Your task to perform on an android device: uninstall "HBO Max: Stream TV & Movies" Image 0: 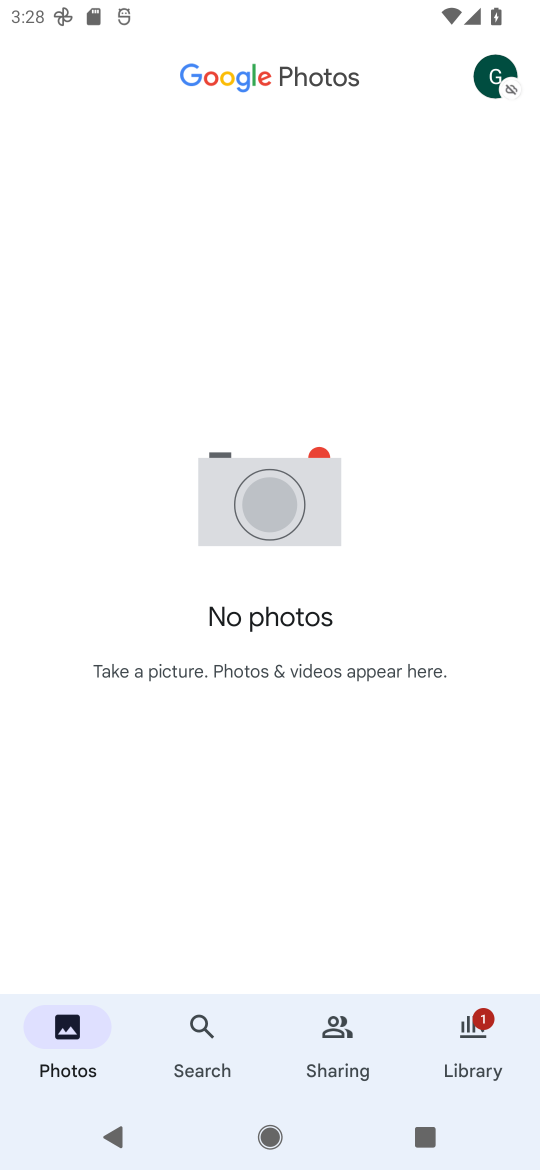
Step 0: press home button
Your task to perform on an android device: uninstall "HBO Max: Stream TV & Movies" Image 1: 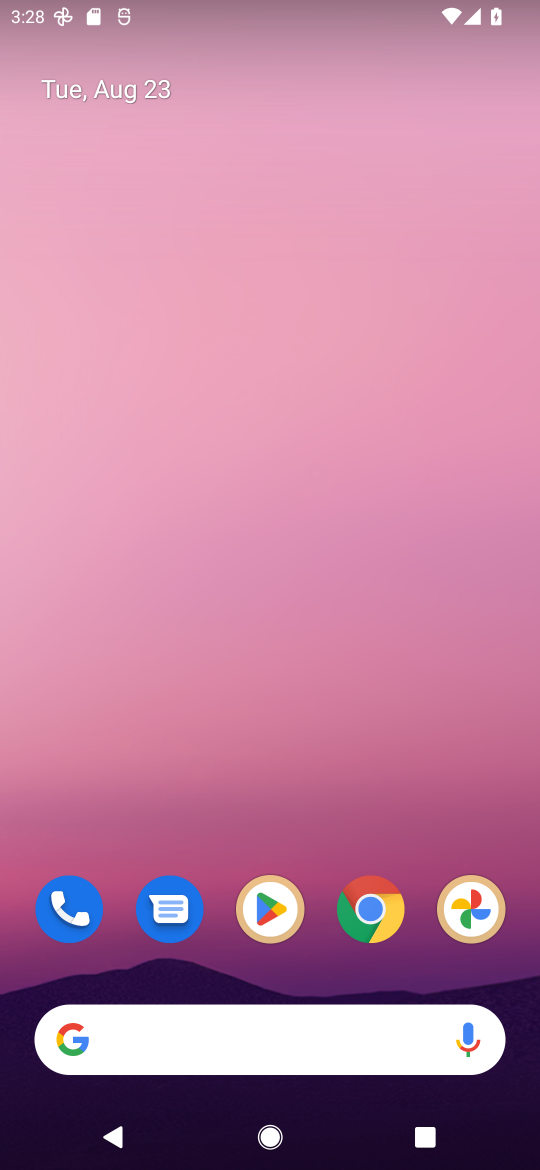
Step 1: press home button
Your task to perform on an android device: uninstall "HBO Max: Stream TV & Movies" Image 2: 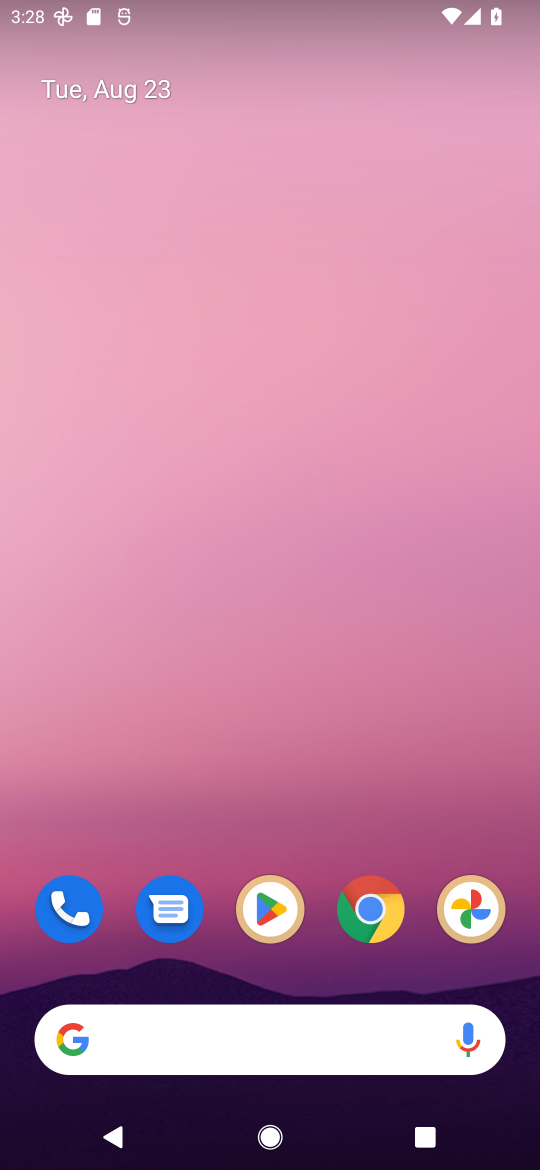
Step 2: click (259, 899)
Your task to perform on an android device: uninstall "HBO Max: Stream TV & Movies" Image 3: 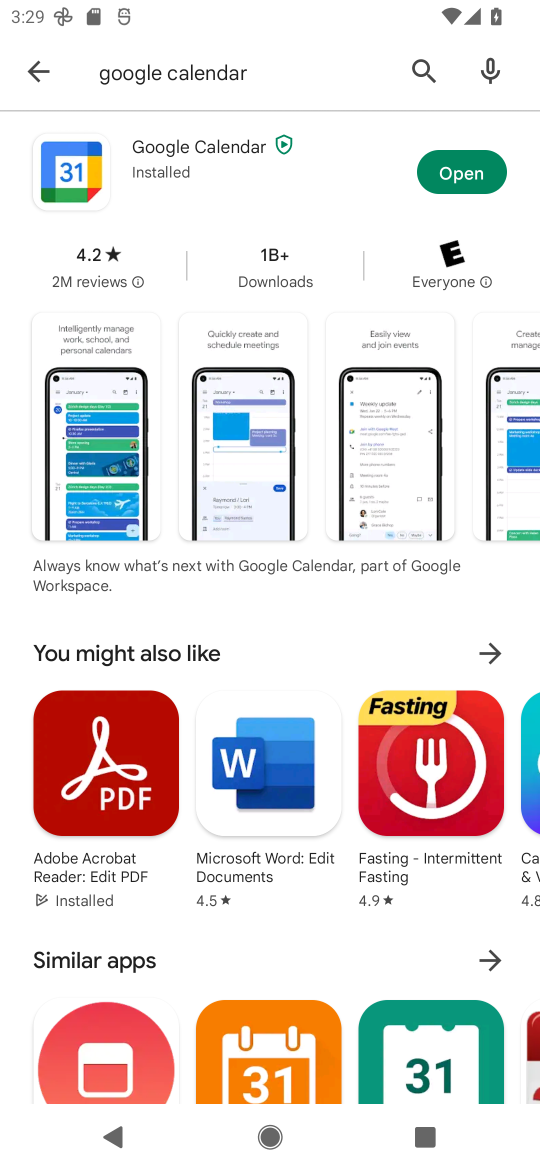
Step 3: click (416, 73)
Your task to perform on an android device: uninstall "HBO Max: Stream TV & Movies" Image 4: 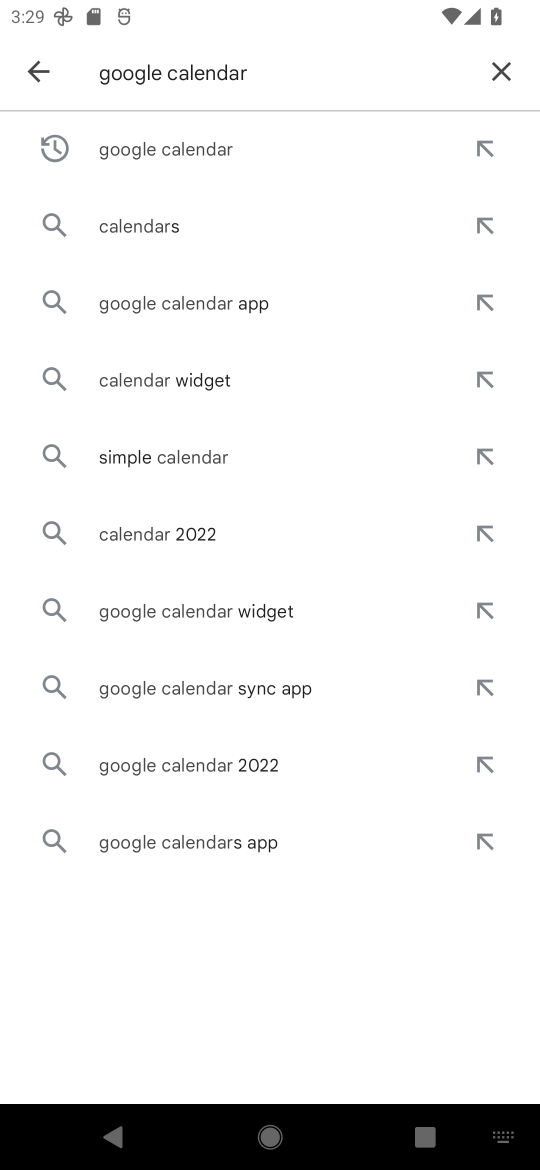
Step 4: click (498, 73)
Your task to perform on an android device: uninstall "HBO Max: Stream TV & Movies" Image 5: 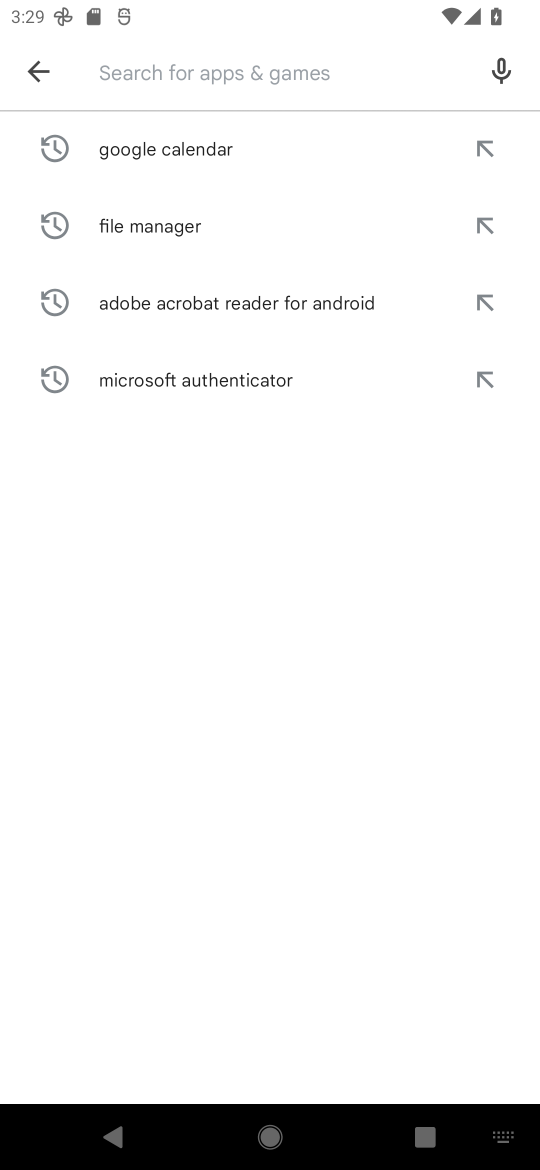
Step 5: type "HBO Max: Stream TV & Movies"
Your task to perform on an android device: uninstall "HBO Max: Stream TV & Movies" Image 6: 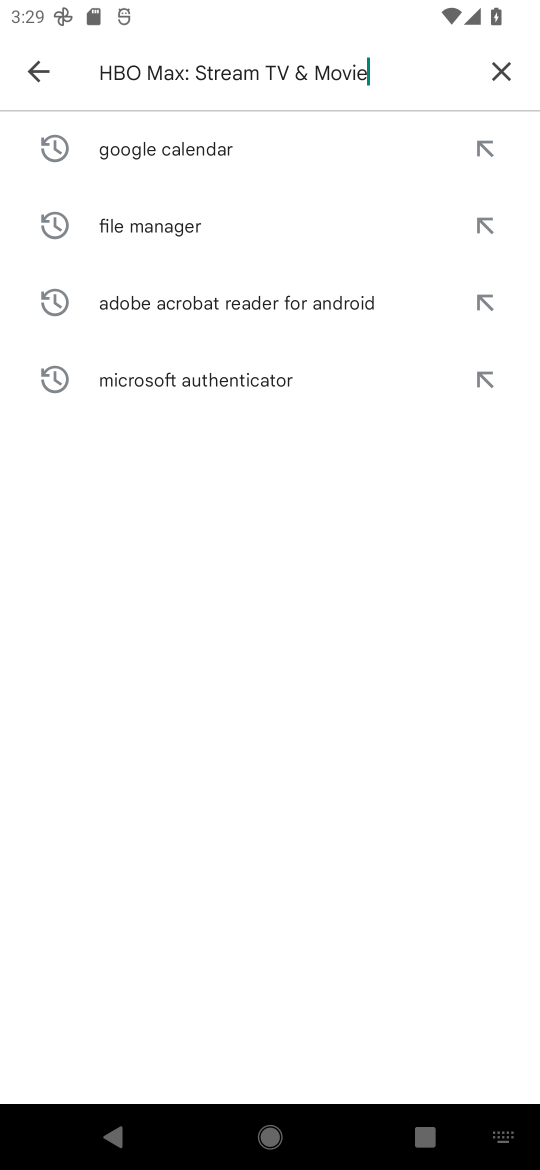
Step 6: type ""
Your task to perform on an android device: uninstall "HBO Max: Stream TV & Movies" Image 7: 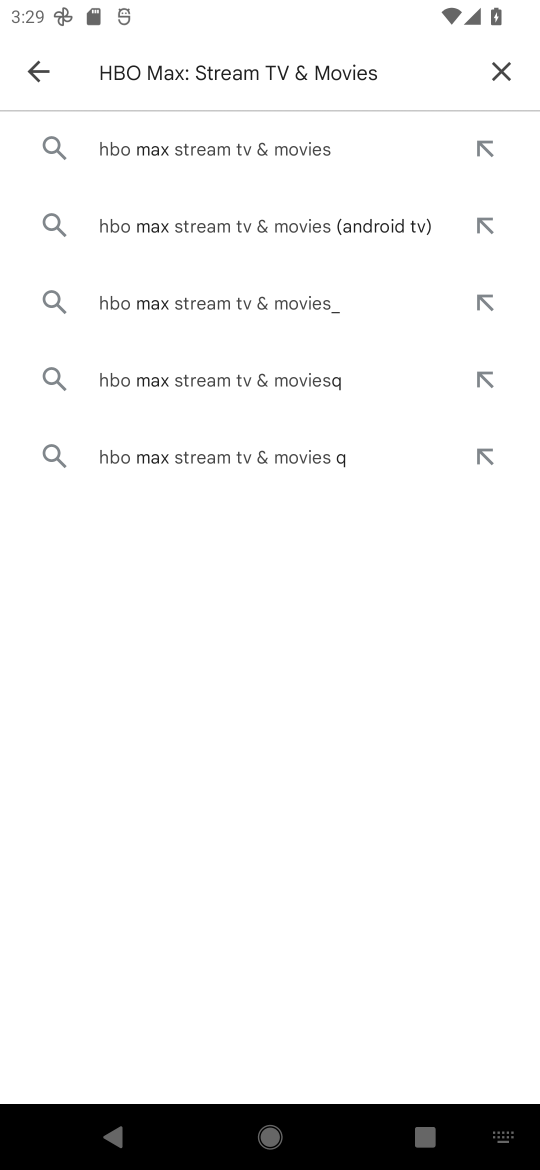
Step 7: click (334, 142)
Your task to perform on an android device: uninstall "HBO Max: Stream TV & Movies" Image 8: 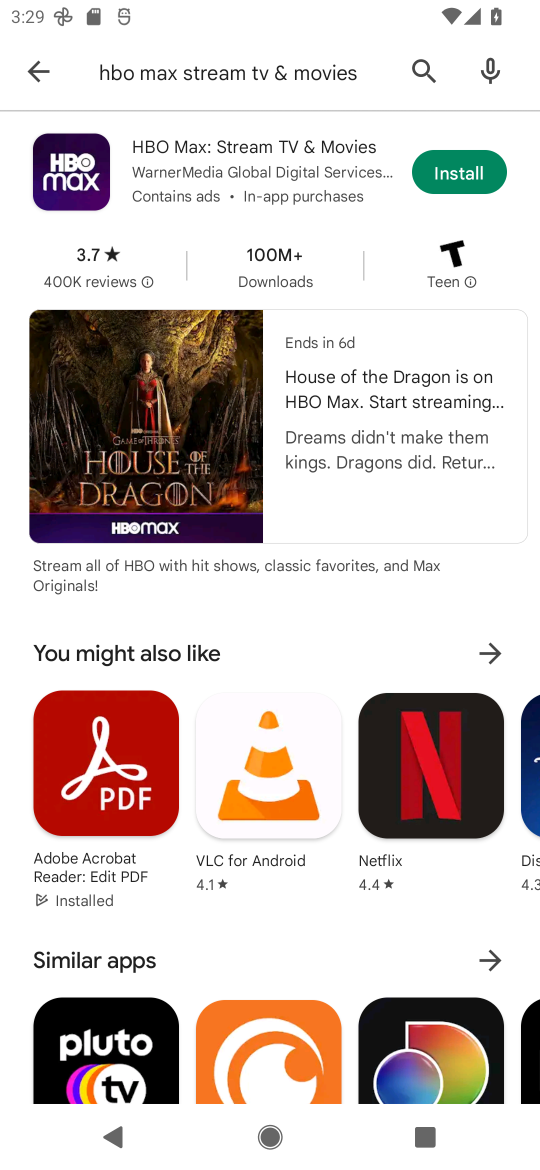
Step 8: task complete